Your task to perform on an android device: open device folders in google photos Image 0: 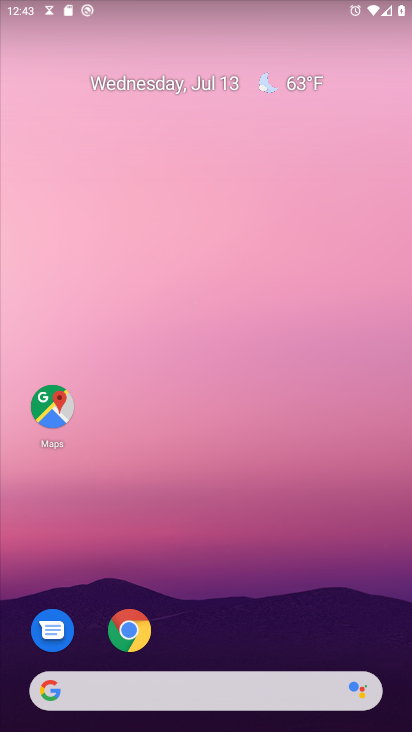
Step 0: drag from (193, 680) to (191, 153)
Your task to perform on an android device: open device folders in google photos Image 1: 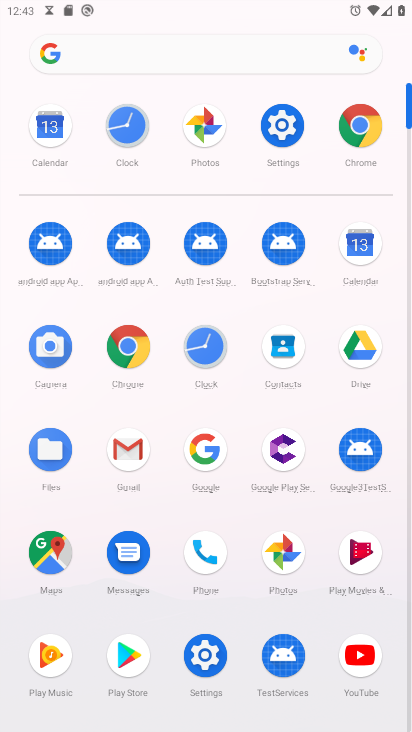
Step 1: click (284, 560)
Your task to perform on an android device: open device folders in google photos Image 2: 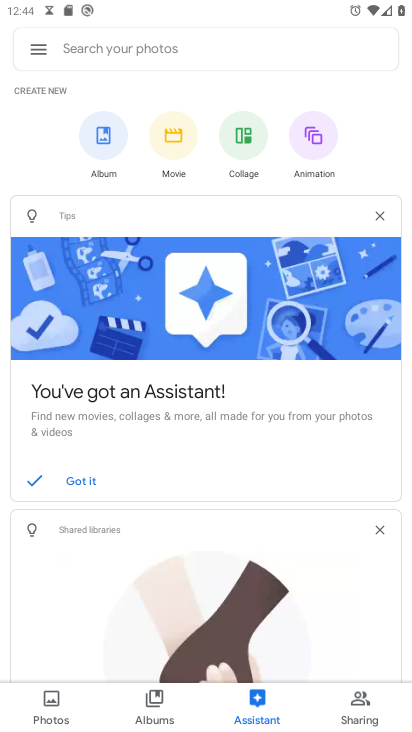
Step 2: click (157, 716)
Your task to perform on an android device: open device folders in google photos Image 3: 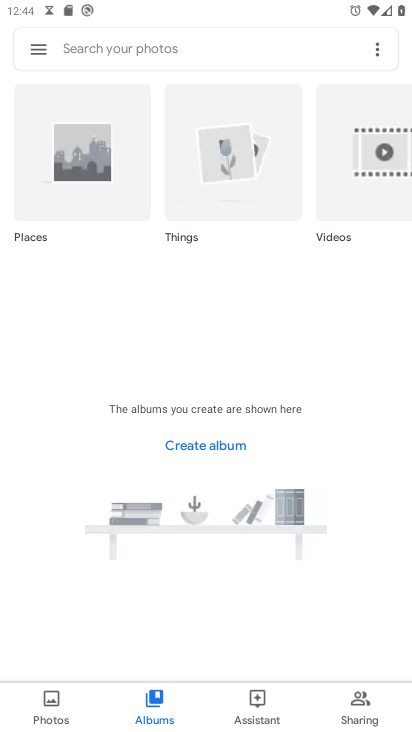
Step 3: task complete